Your task to perform on an android device: open app "Facebook Lite" (install if not already installed) Image 0: 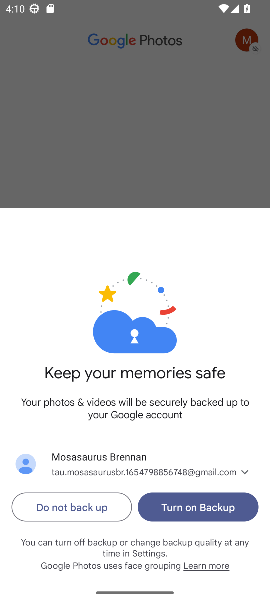
Step 0: press home button
Your task to perform on an android device: open app "Facebook Lite" (install if not already installed) Image 1: 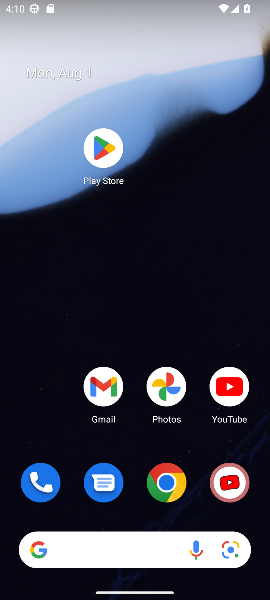
Step 1: click (99, 149)
Your task to perform on an android device: open app "Facebook Lite" (install if not already installed) Image 2: 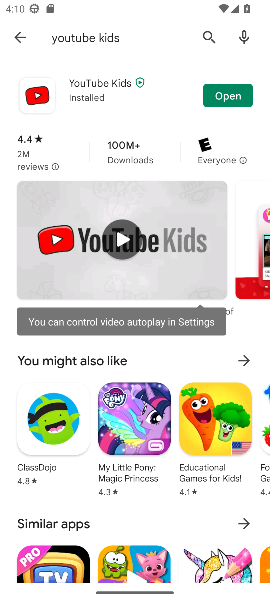
Step 2: click (203, 35)
Your task to perform on an android device: open app "Facebook Lite" (install if not already installed) Image 3: 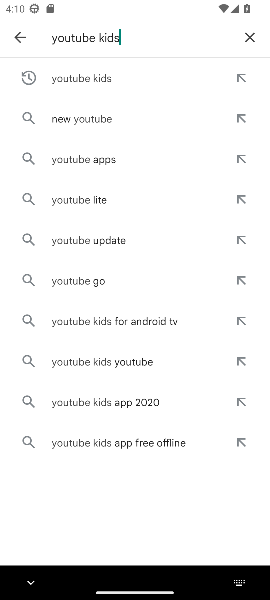
Step 3: click (251, 39)
Your task to perform on an android device: open app "Facebook Lite" (install if not already installed) Image 4: 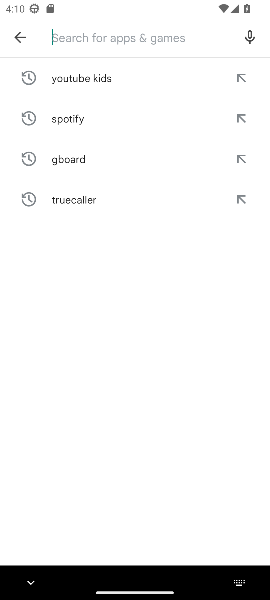
Step 4: type "Facebook Lite"
Your task to perform on an android device: open app "Facebook Lite" (install if not already installed) Image 5: 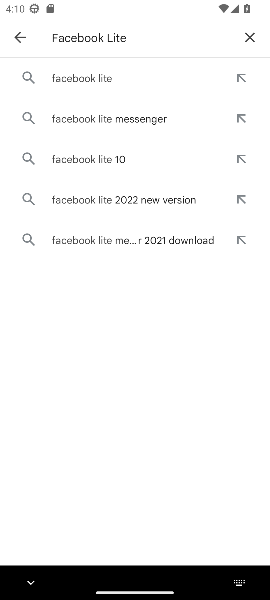
Step 5: click (100, 79)
Your task to perform on an android device: open app "Facebook Lite" (install if not already installed) Image 6: 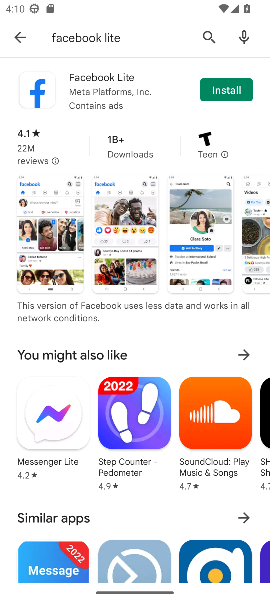
Step 6: click (227, 93)
Your task to perform on an android device: open app "Facebook Lite" (install if not already installed) Image 7: 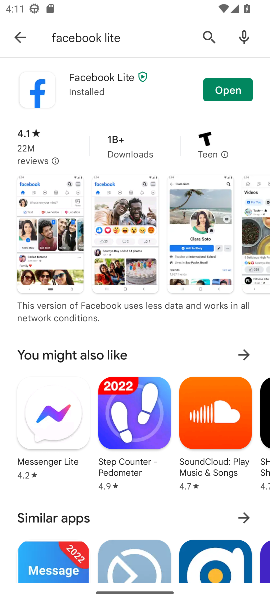
Step 7: click (229, 91)
Your task to perform on an android device: open app "Facebook Lite" (install if not already installed) Image 8: 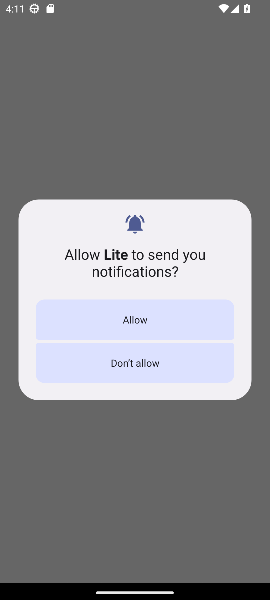
Step 8: click (150, 364)
Your task to perform on an android device: open app "Facebook Lite" (install if not already installed) Image 9: 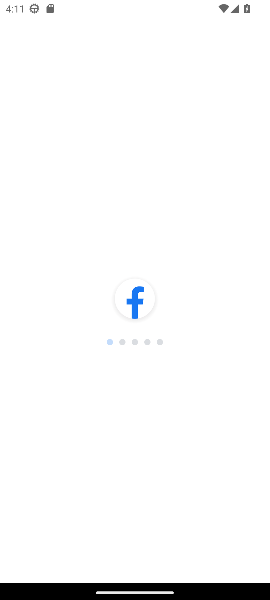
Step 9: task complete